Your task to perform on an android device: Show me recent news Image 0: 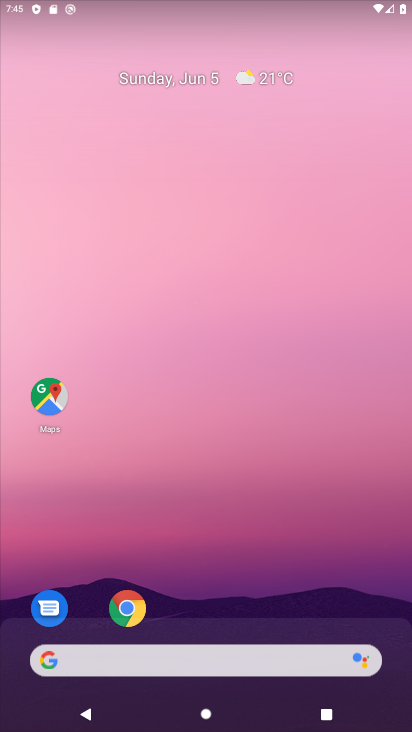
Step 0: drag from (213, 641) to (323, 10)
Your task to perform on an android device: Show me recent news Image 1: 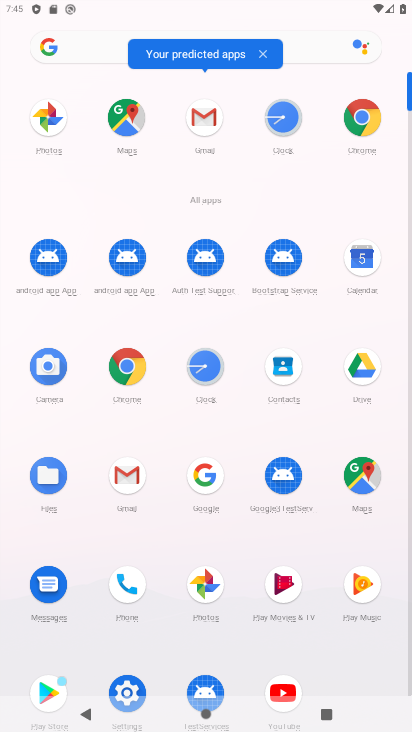
Step 1: click (299, 43)
Your task to perform on an android device: Show me recent news Image 2: 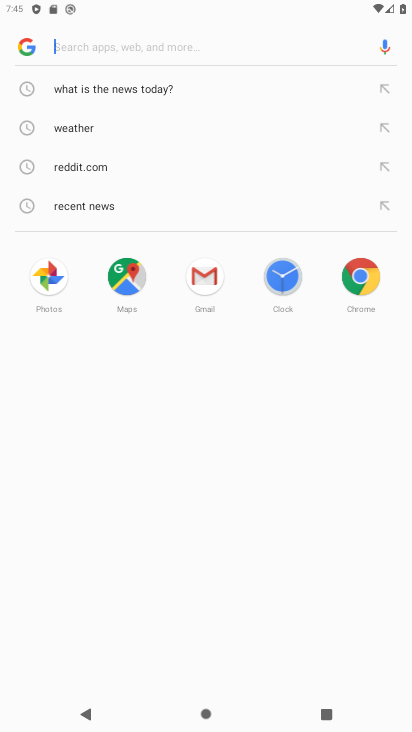
Step 2: type "recent news"
Your task to perform on an android device: Show me recent news Image 3: 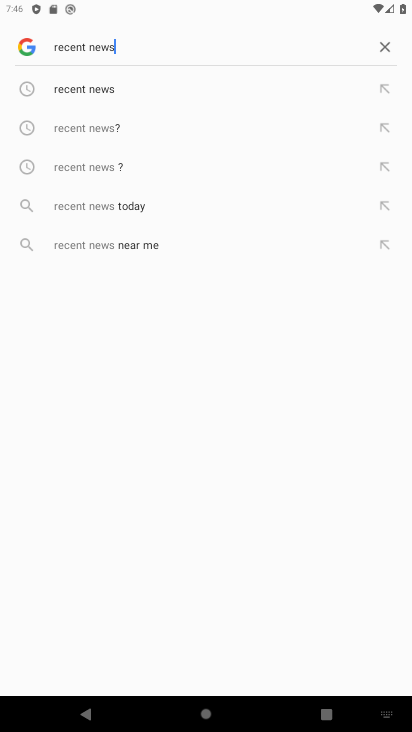
Step 3: click (126, 88)
Your task to perform on an android device: Show me recent news Image 4: 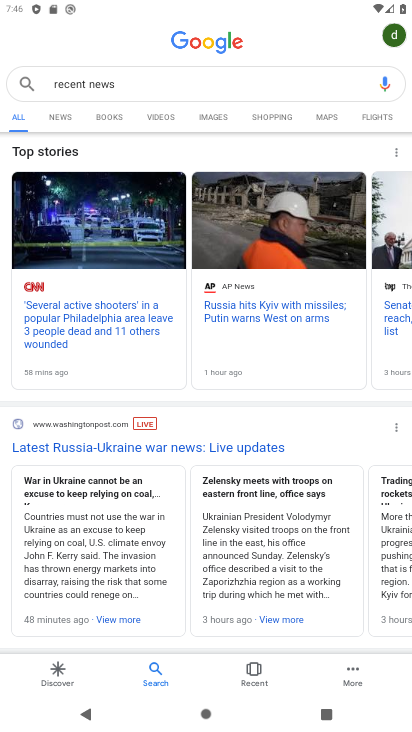
Step 4: task complete